Your task to perform on an android device: Go to Google maps Image 0: 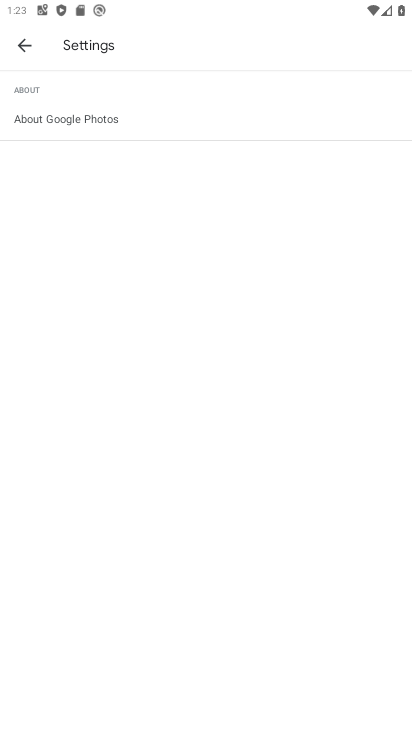
Step 0: press home button
Your task to perform on an android device: Go to Google maps Image 1: 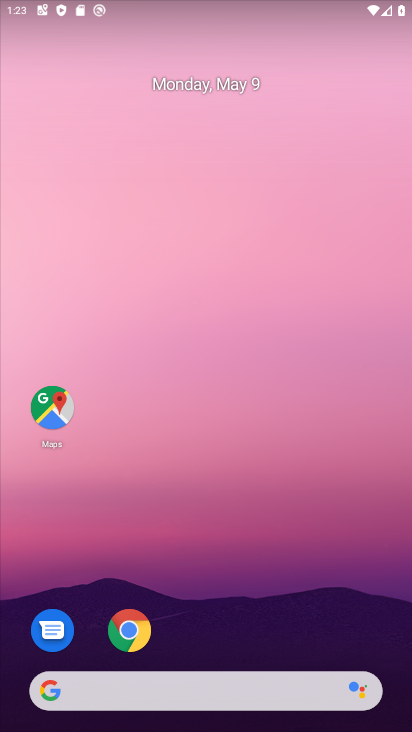
Step 1: drag from (227, 718) to (195, 365)
Your task to perform on an android device: Go to Google maps Image 2: 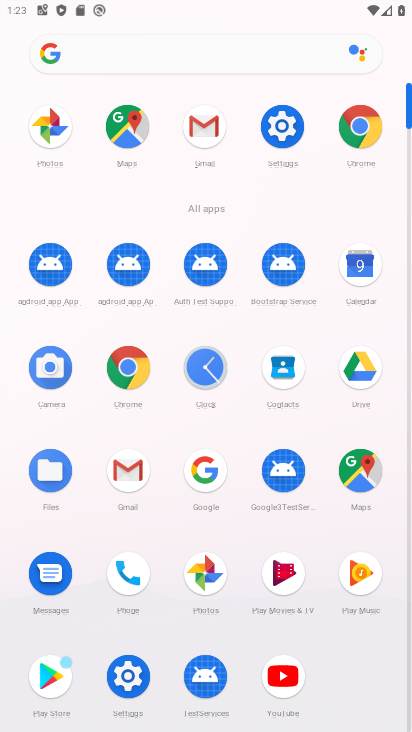
Step 2: click (121, 140)
Your task to perform on an android device: Go to Google maps Image 3: 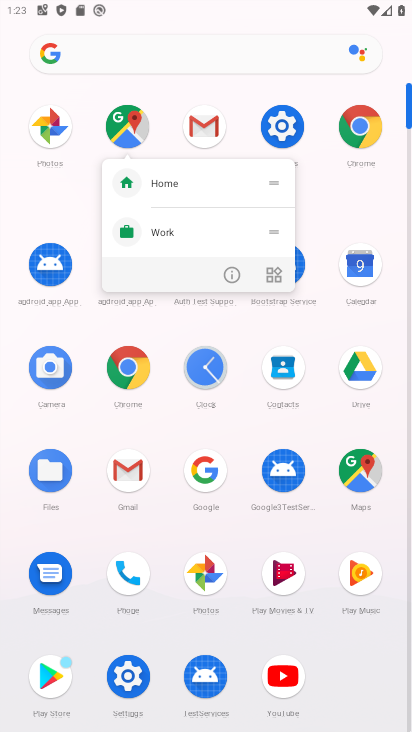
Step 3: click (120, 138)
Your task to perform on an android device: Go to Google maps Image 4: 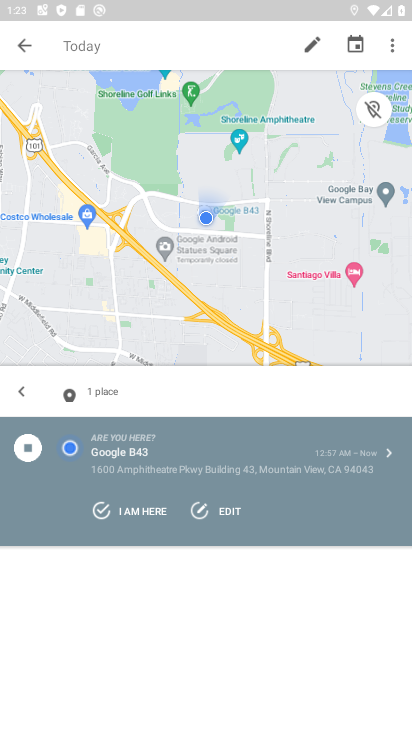
Step 4: click (3, 42)
Your task to perform on an android device: Go to Google maps Image 5: 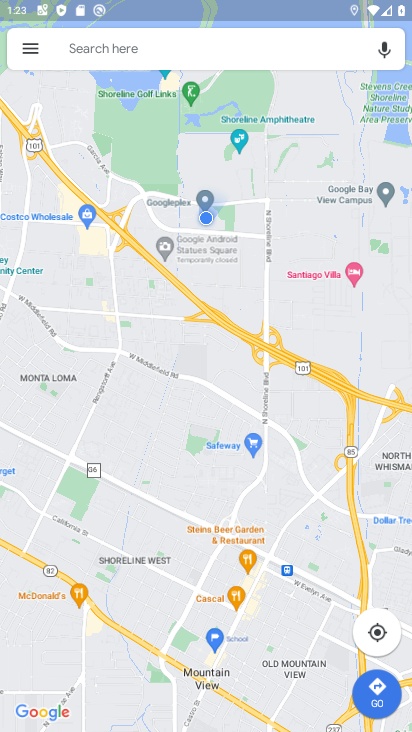
Step 5: task complete